Your task to perform on an android device: turn notification dots off Image 0: 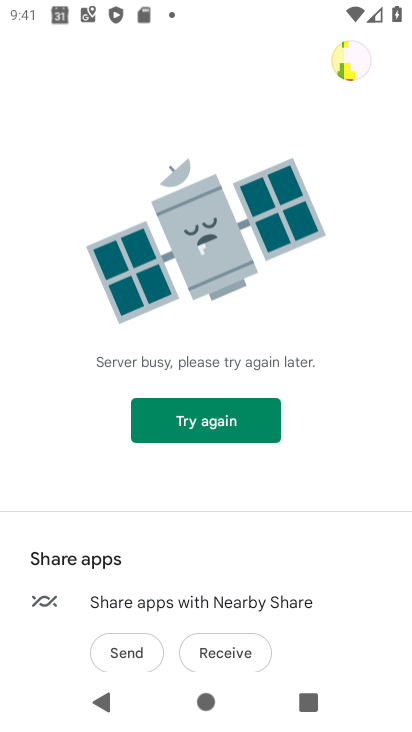
Step 0: press home button
Your task to perform on an android device: turn notification dots off Image 1: 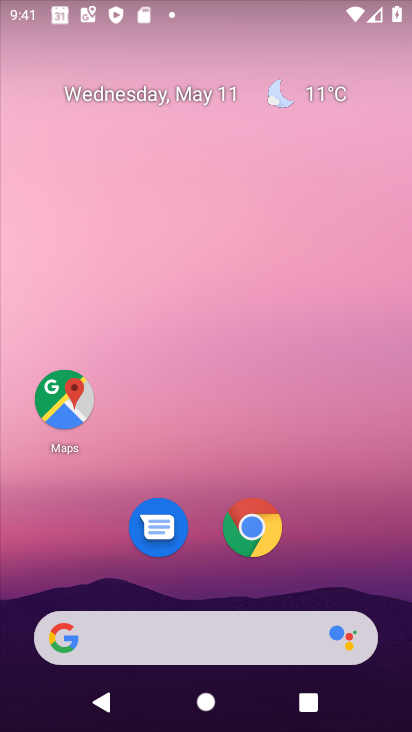
Step 1: drag from (369, 549) to (383, 27)
Your task to perform on an android device: turn notification dots off Image 2: 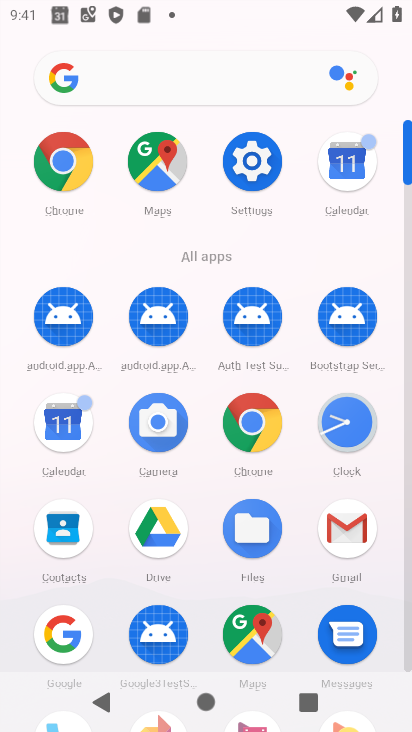
Step 2: click (230, 176)
Your task to perform on an android device: turn notification dots off Image 3: 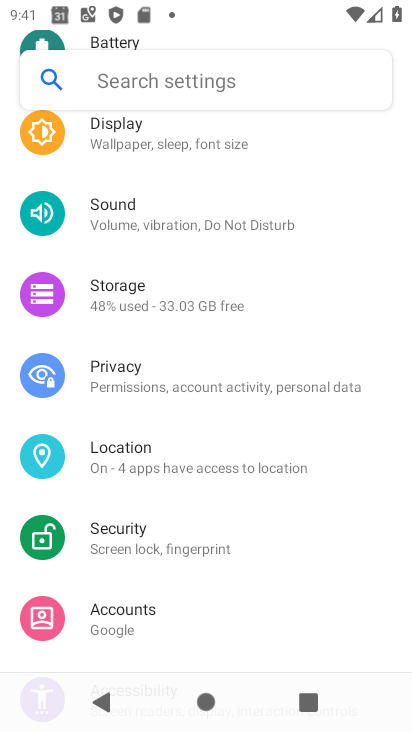
Step 3: drag from (250, 244) to (298, 568)
Your task to perform on an android device: turn notification dots off Image 4: 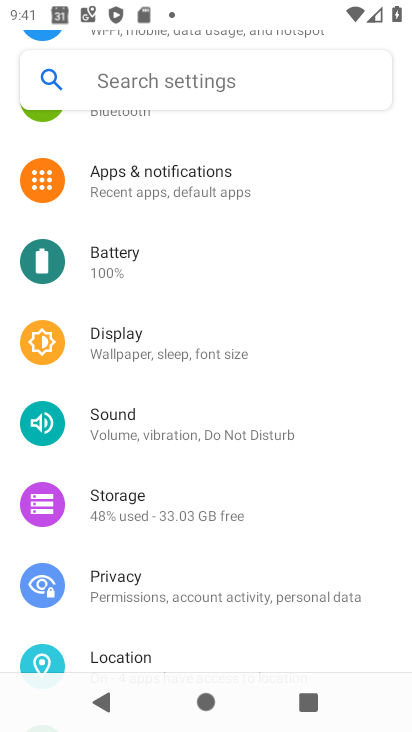
Step 4: click (180, 202)
Your task to perform on an android device: turn notification dots off Image 5: 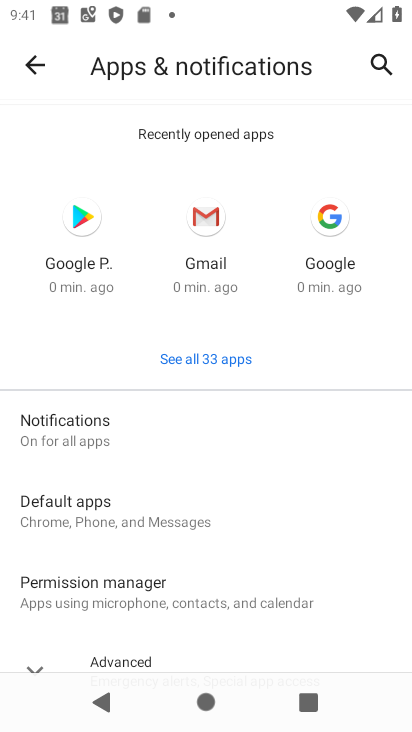
Step 5: click (95, 431)
Your task to perform on an android device: turn notification dots off Image 6: 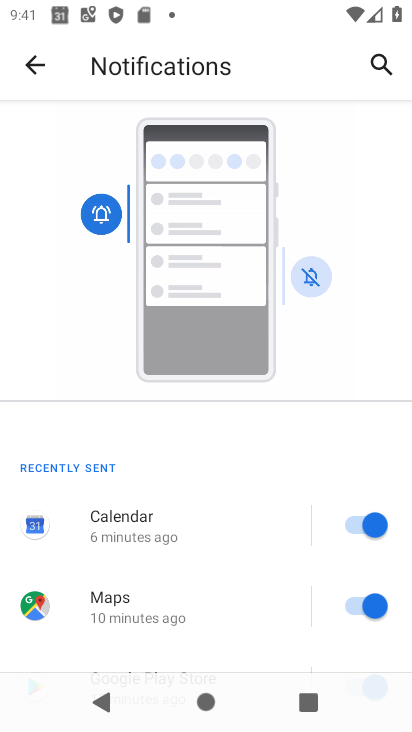
Step 6: drag from (171, 655) to (174, 210)
Your task to perform on an android device: turn notification dots off Image 7: 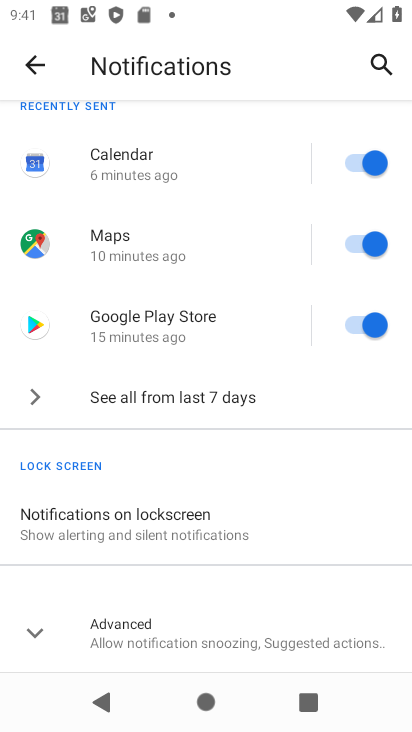
Step 7: drag from (217, 590) to (286, 243)
Your task to perform on an android device: turn notification dots off Image 8: 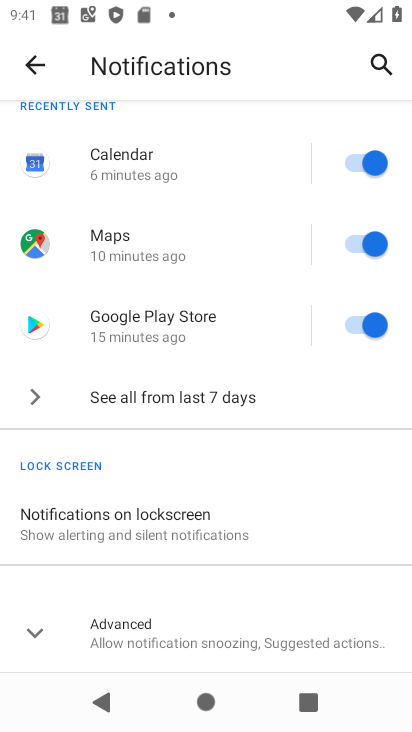
Step 8: drag from (196, 589) to (223, 251)
Your task to perform on an android device: turn notification dots off Image 9: 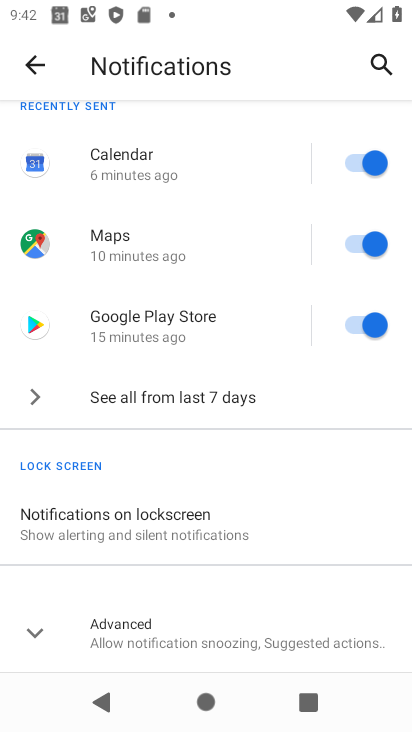
Step 9: drag from (257, 580) to (237, 166)
Your task to perform on an android device: turn notification dots off Image 10: 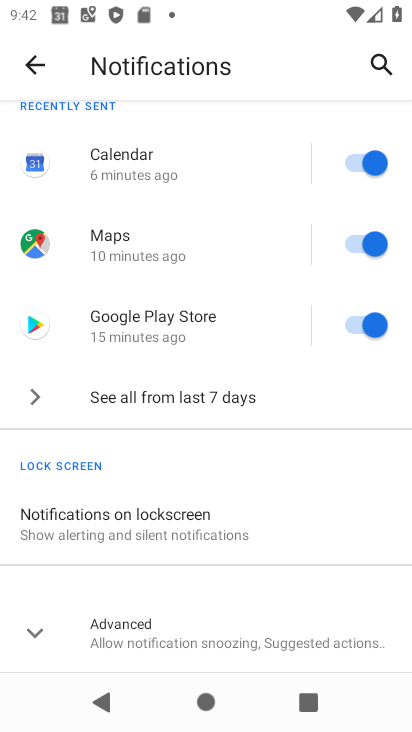
Step 10: click (270, 640)
Your task to perform on an android device: turn notification dots off Image 11: 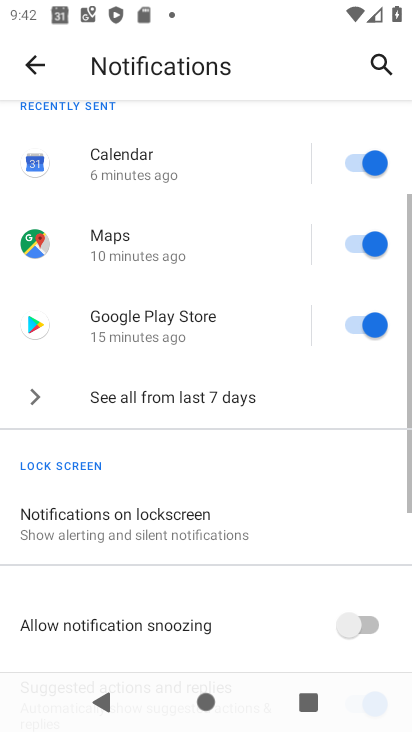
Step 11: drag from (270, 640) to (215, 174)
Your task to perform on an android device: turn notification dots off Image 12: 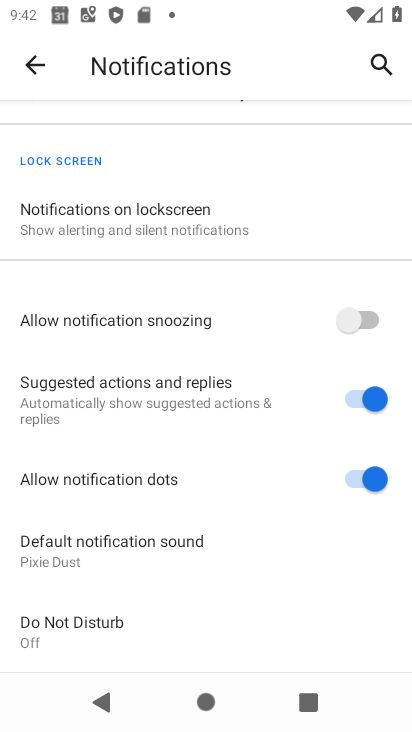
Step 12: click (359, 487)
Your task to perform on an android device: turn notification dots off Image 13: 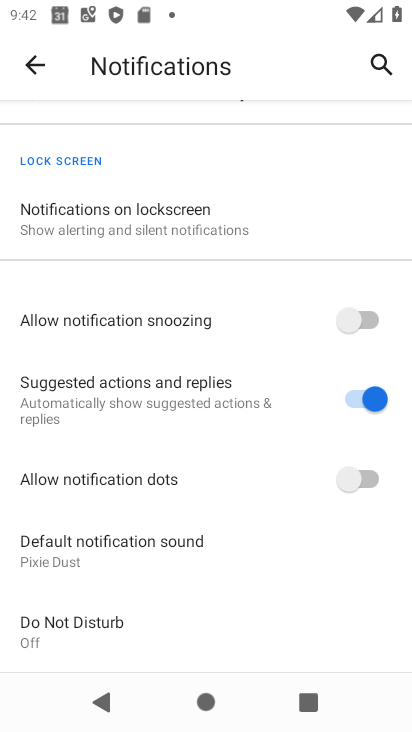
Step 13: task complete